Your task to perform on an android device: turn on the 24-hour format for clock Image 0: 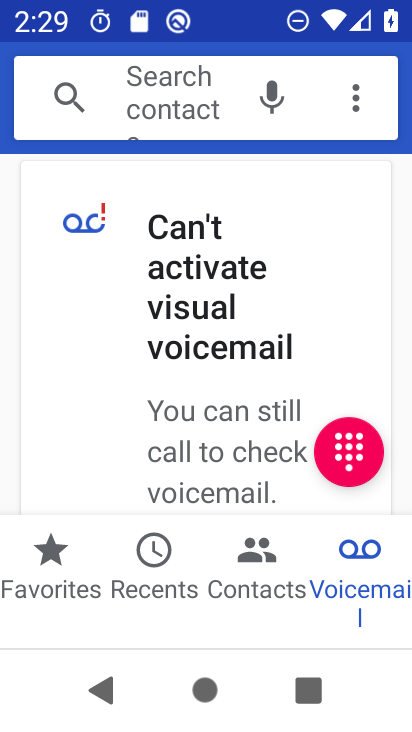
Step 0: press home button
Your task to perform on an android device: turn on the 24-hour format for clock Image 1: 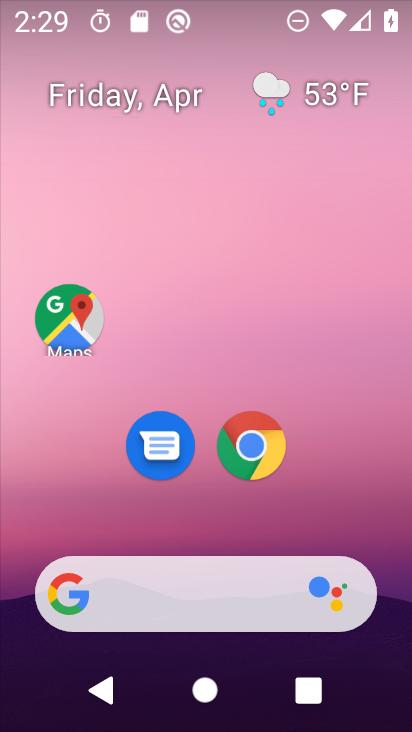
Step 1: drag from (363, 515) to (348, 144)
Your task to perform on an android device: turn on the 24-hour format for clock Image 2: 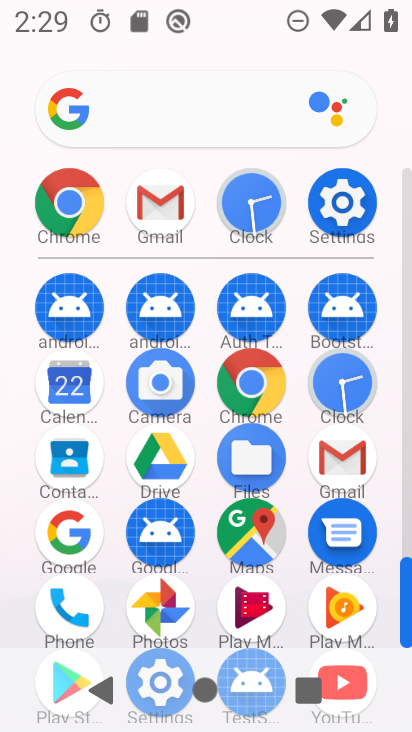
Step 2: click (336, 382)
Your task to perform on an android device: turn on the 24-hour format for clock Image 3: 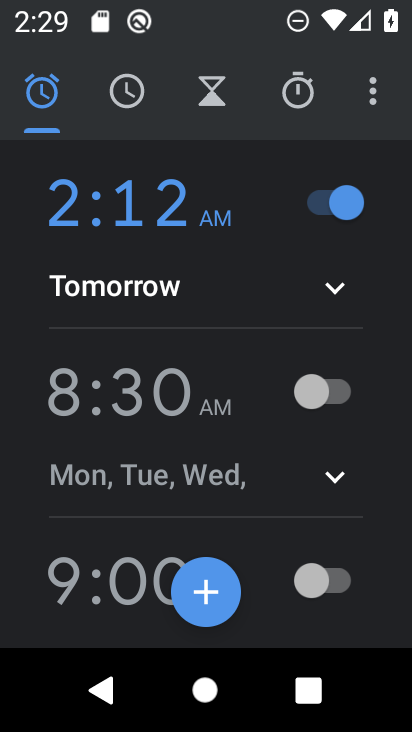
Step 3: click (375, 93)
Your task to perform on an android device: turn on the 24-hour format for clock Image 4: 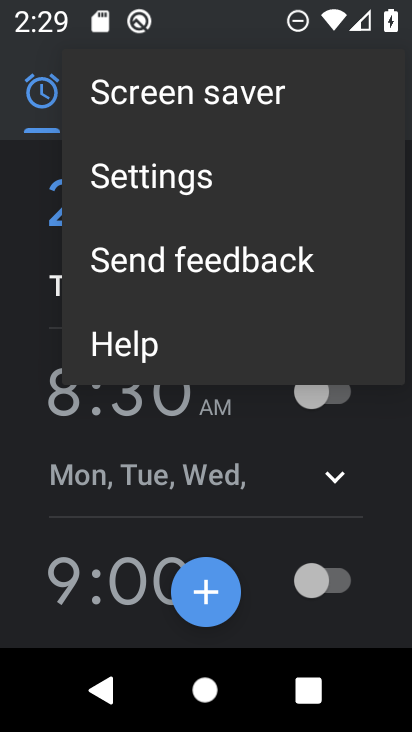
Step 4: click (254, 193)
Your task to perform on an android device: turn on the 24-hour format for clock Image 5: 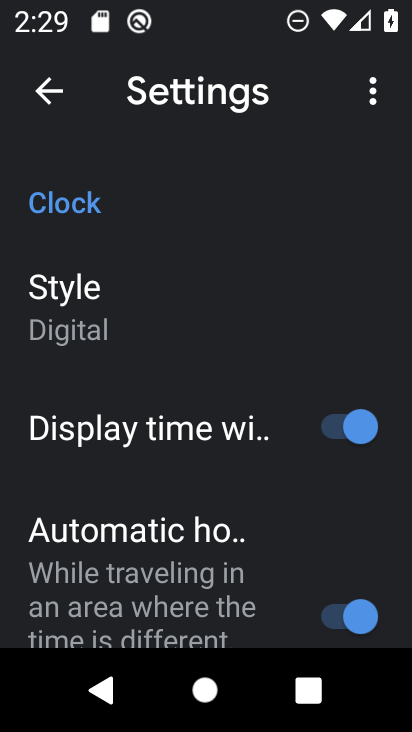
Step 5: drag from (288, 501) to (270, 273)
Your task to perform on an android device: turn on the 24-hour format for clock Image 6: 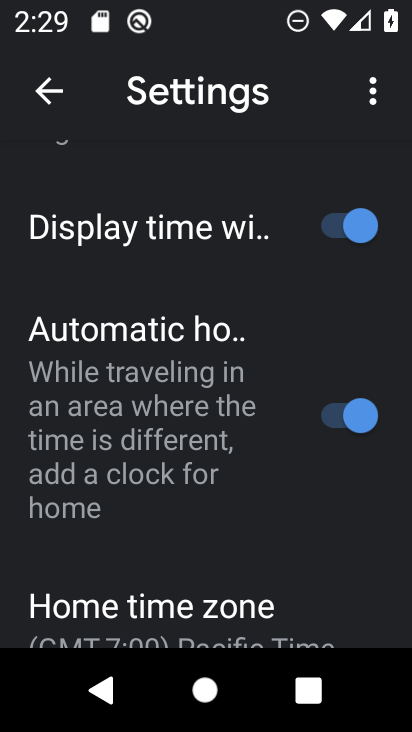
Step 6: drag from (270, 510) to (260, 243)
Your task to perform on an android device: turn on the 24-hour format for clock Image 7: 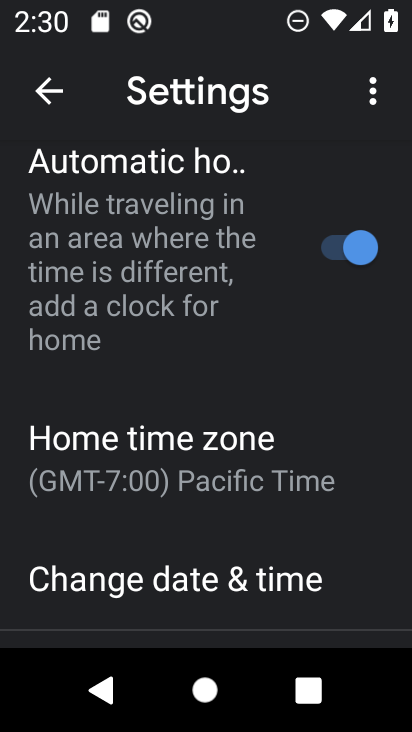
Step 7: drag from (269, 495) to (272, 280)
Your task to perform on an android device: turn on the 24-hour format for clock Image 8: 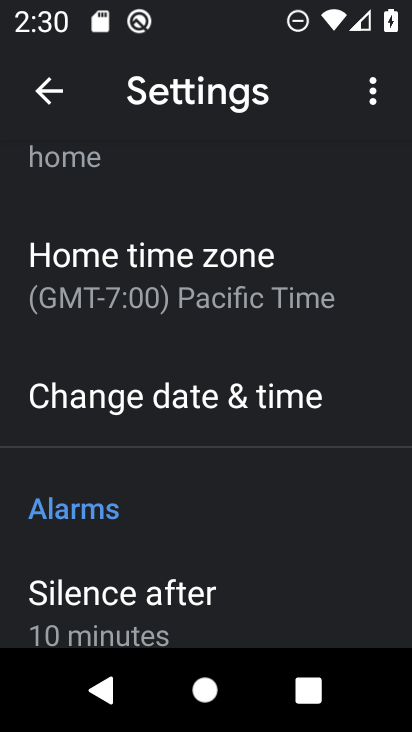
Step 8: drag from (271, 458) to (273, 303)
Your task to perform on an android device: turn on the 24-hour format for clock Image 9: 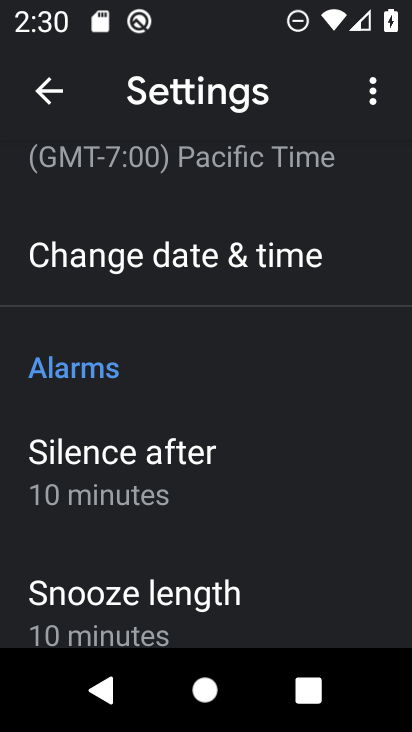
Step 9: drag from (300, 532) to (298, 411)
Your task to perform on an android device: turn on the 24-hour format for clock Image 10: 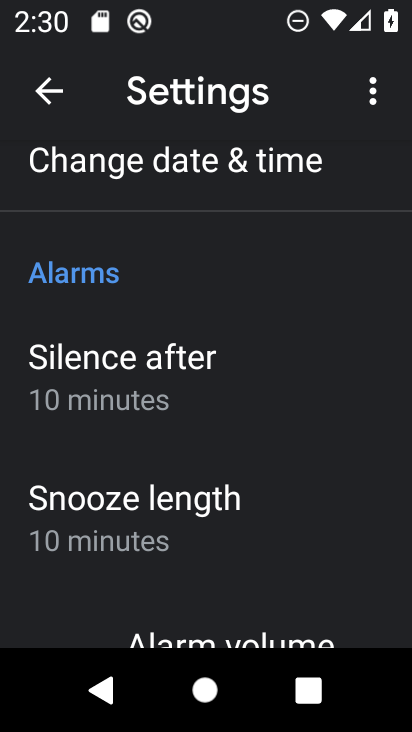
Step 10: click (260, 189)
Your task to perform on an android device: turn on the 24-hour format for clock Image 11: 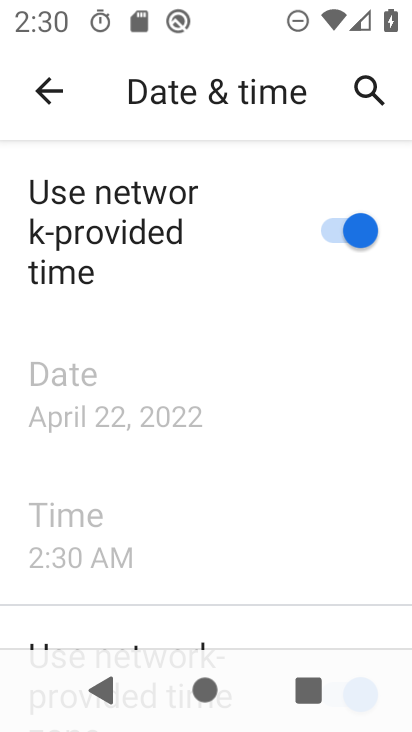
Step 11: drag from (285, 526) to (289, 306)
Your task to perform on an android device: turn on the 24-hour format for clock Image 12: 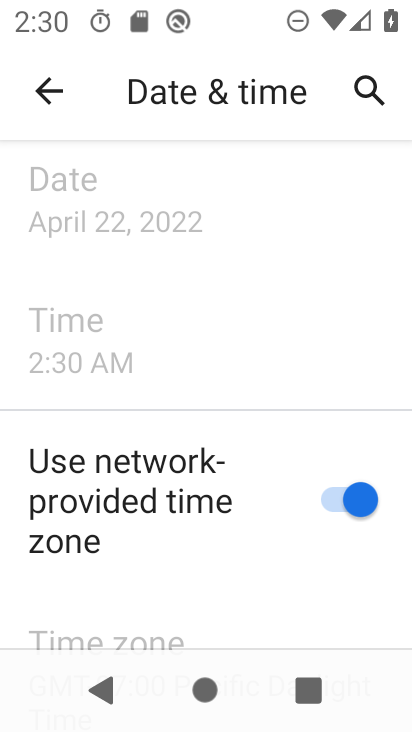
Step 12: drag from (246, 548) to (256, 293)
Your task to perform on an android device: turn on the 24-hour format for clock Image 13: 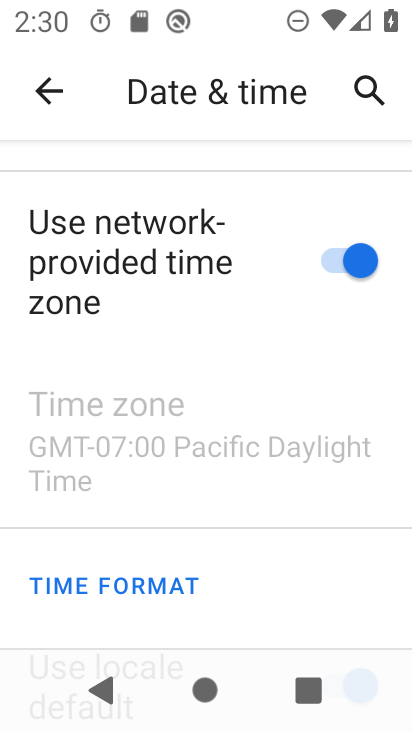
Step 13: drag from (267, 561) to (249, 264)
Your task to perform on an android device: turn on the 24-hour format for clock Image 14: 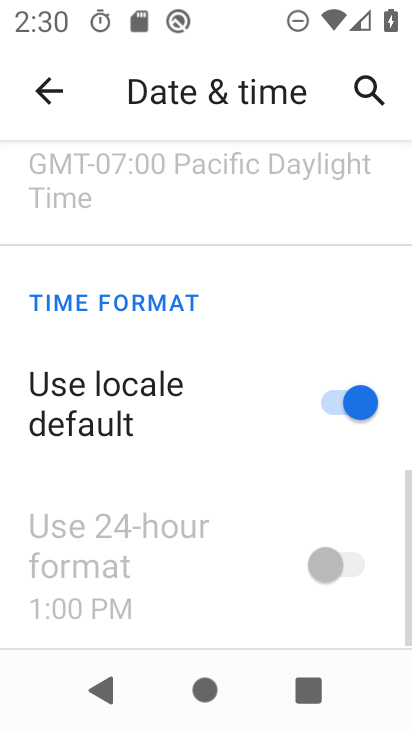
Step 14: drag from (237, 582) to (234, 351)
Your task to perform on an android device: turn on the 24-hour format for clock Image 15: 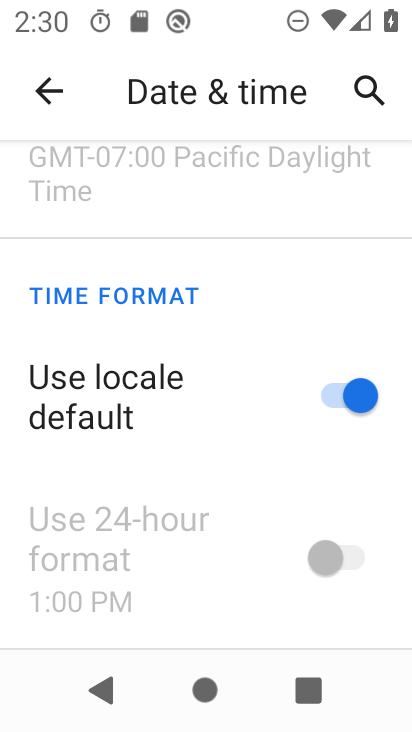
Step 15: click (333, 401)
Your task to perform on an android device: turn on the 24-hour format for clock Image 16: 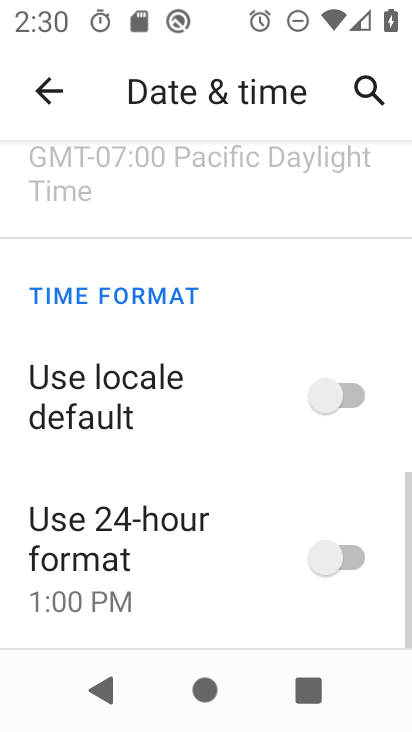
Step 16: click (331, 570)
Your task to perform on an android device: turn on the 24-hour format for clock Image 17: 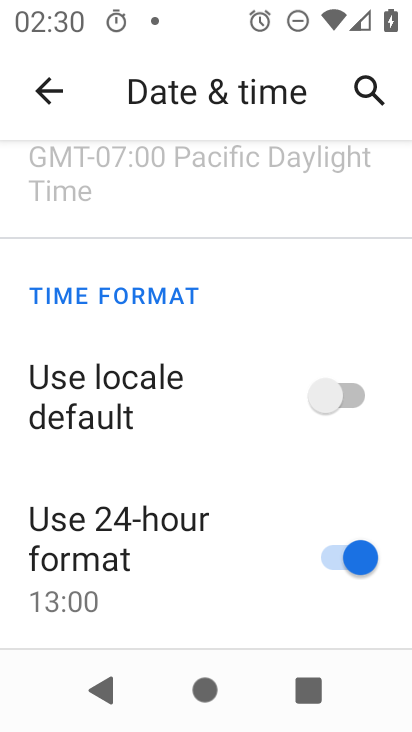
Step 17: task complete